Your task to perform on an android device: change timer sound Image 0: 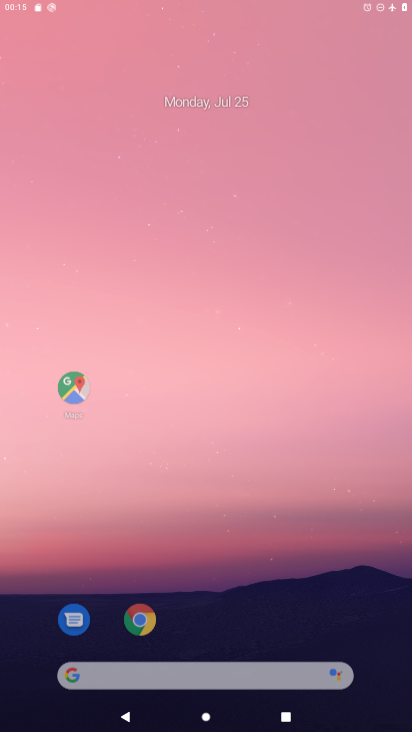
Step 0: click (400, 284)
Your task to perform on an android device: change timer sound Image 1: 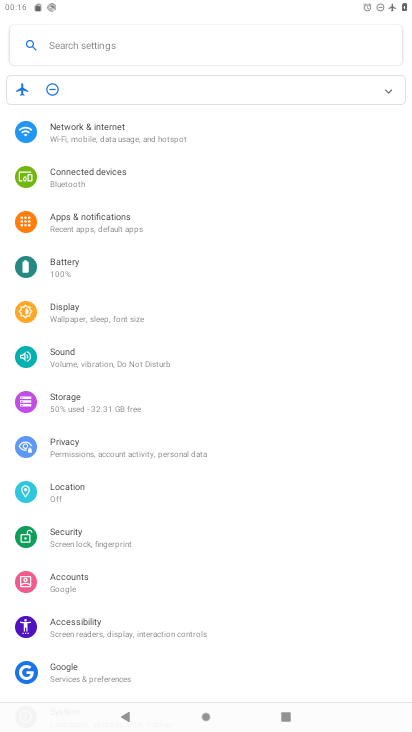
Step 1: press home button
Your task to perform on an android device: change timer sound Image 2: 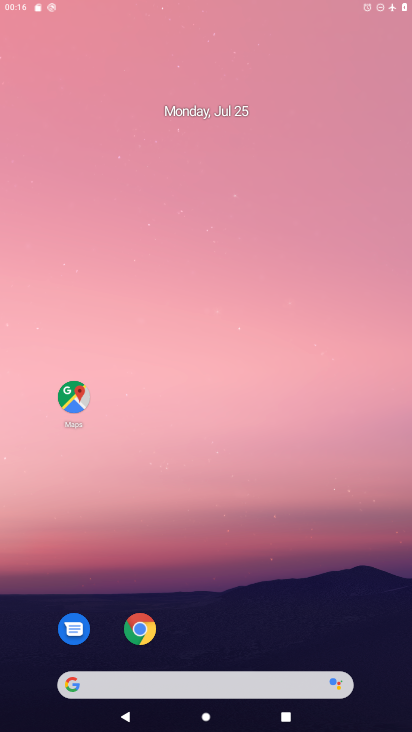
Step 2: drag from (154, 670) to (260, 153)
Your task to perform on an android device: change timer sound Image 3: 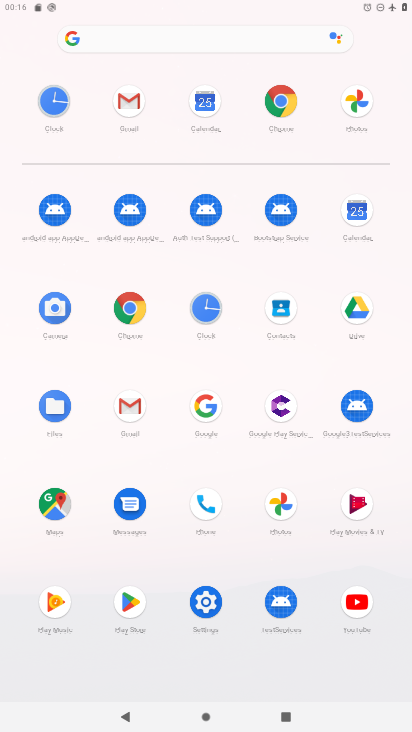
Step 3: click (201, 303)
Your task to perform on an android device: change timer sound Image 4: 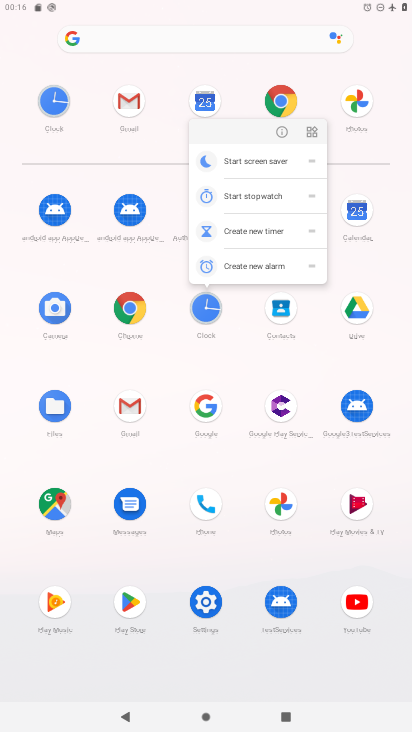
Step 4: click (286, 131)
Your task to perform on an android device: change timer sound Image 5: 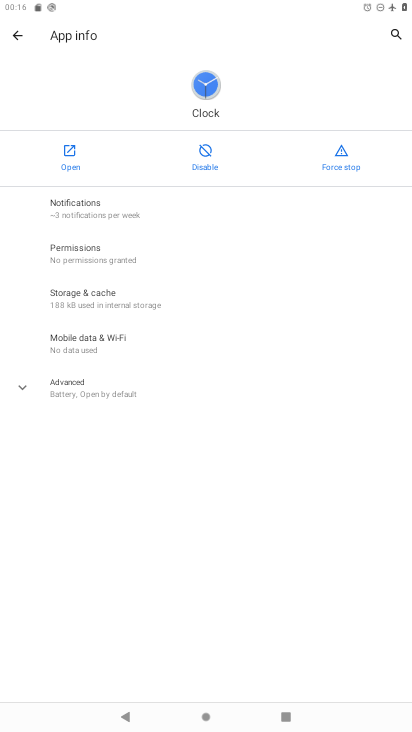
Step 5: click (73, 160)
Your task to perform on an android device: change timer sound Image 6: 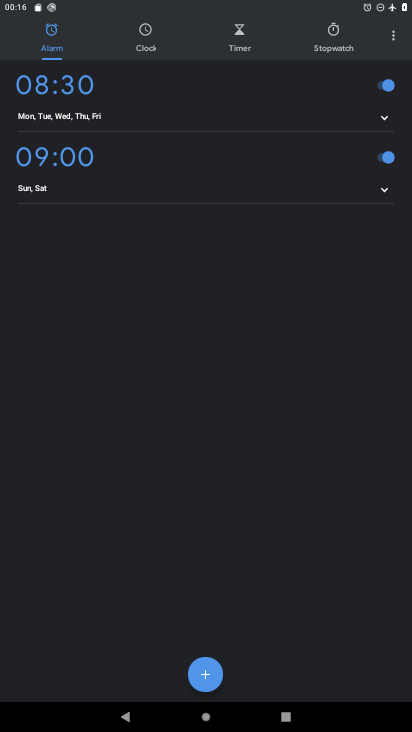
Step 6: click (247, 40)
Your task to perform on an android device: change timer sound Image 7: 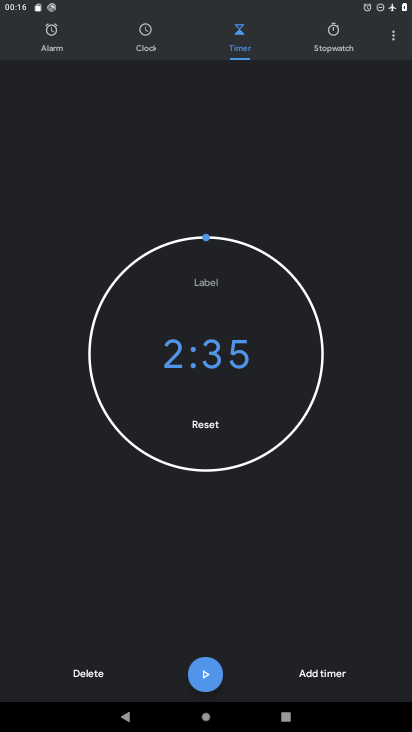
Step 7: click (89, 681)
Your task to perform on an android device: change timer sound Image 8: 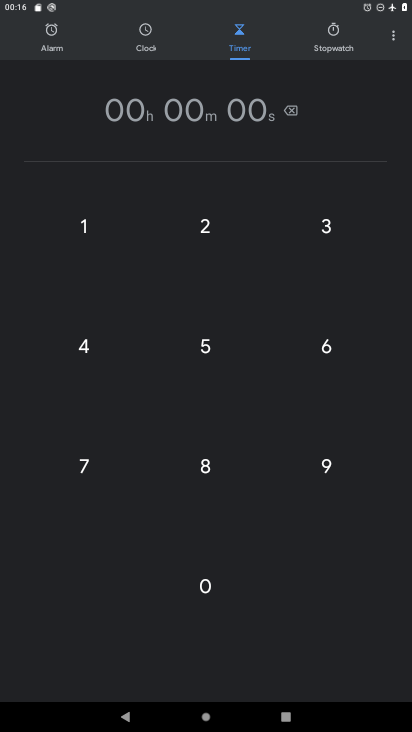
Step 8: click (205, 337)
Your task to perform on an android device: change timer sound Image 9: 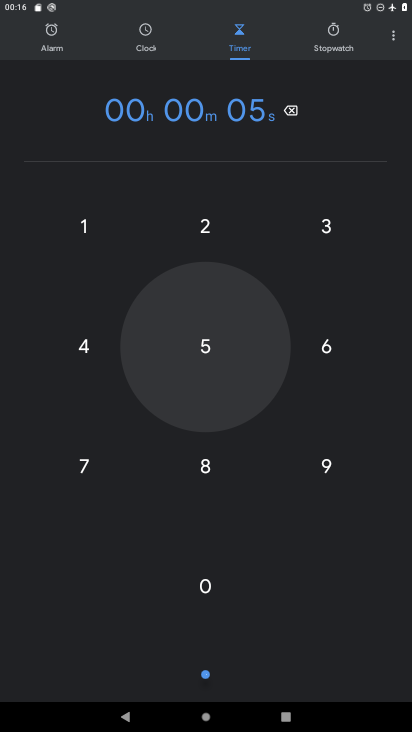
Step 9: click (312, 224)
Your task to perform on an android device: change timer sound Image 10: 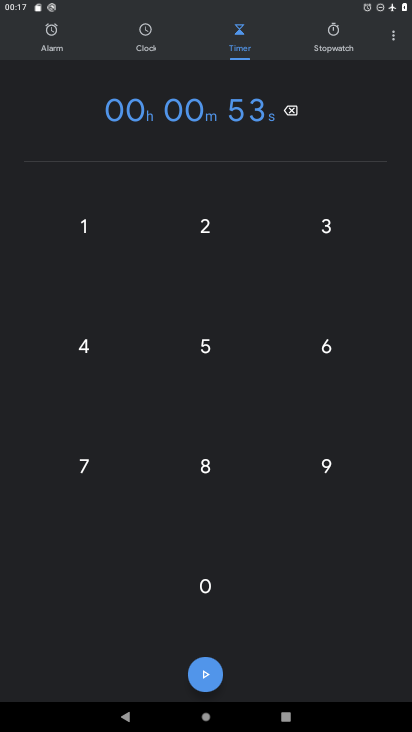
Step 10: click (302, 106)
Your task to perform on an android device: change timer sound Image 11: 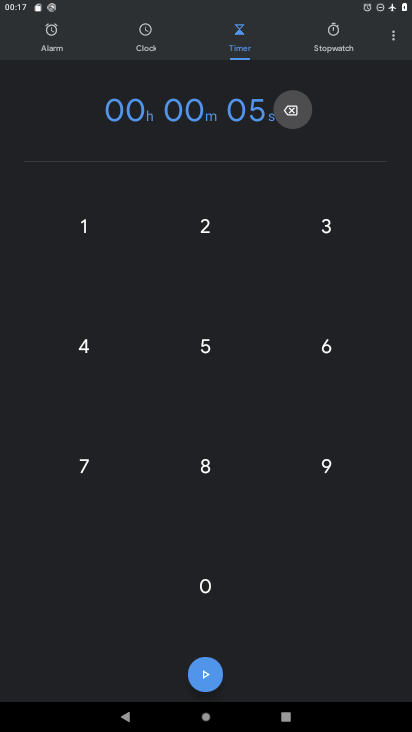
Step 11: click (293, 109)
Your task to perform on an android device: change timer sound Image 12: 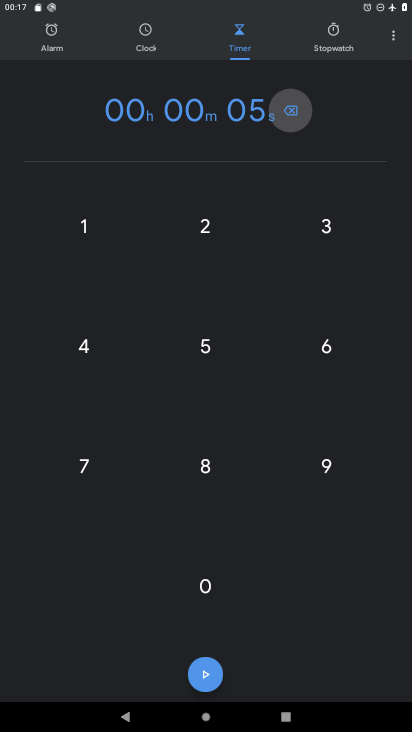
Step 12: click (293, 109)
Your task to perform on an android device: change timer sound Image 13: 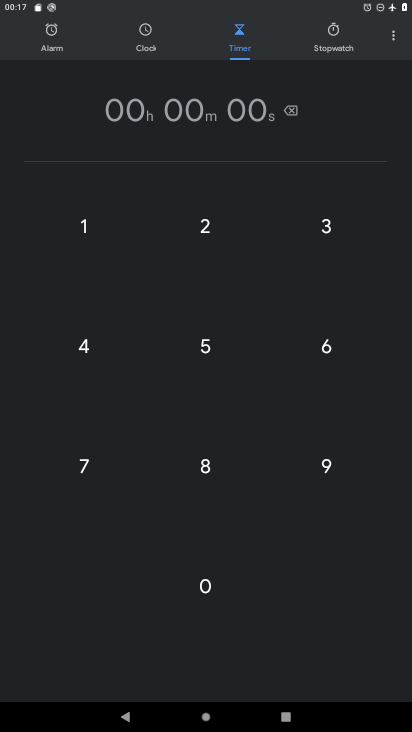
Step 13: drag from (396, 32) to (336, 68)
Your task to perform on an android device: change timer sound Image 14: 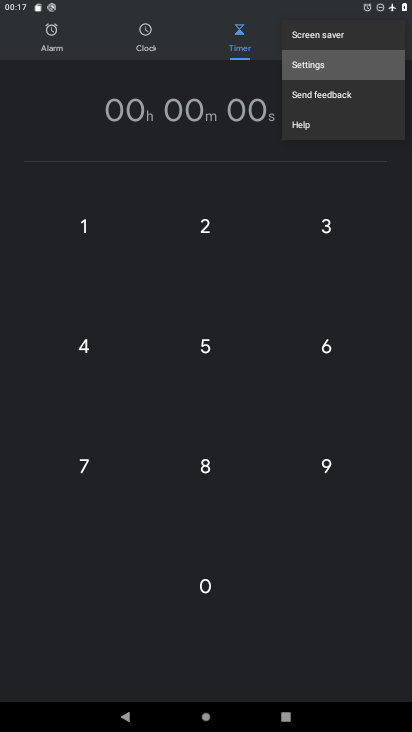
Step 14: click (336, 68)
Your task to perform on an android device: change timer sound Image 15: 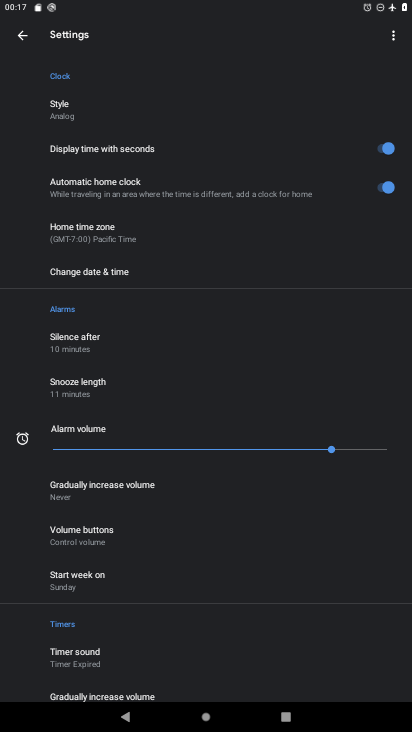
Step 15: click (104, 653)
Your task to perform on an android device: change timer sound Image 16: 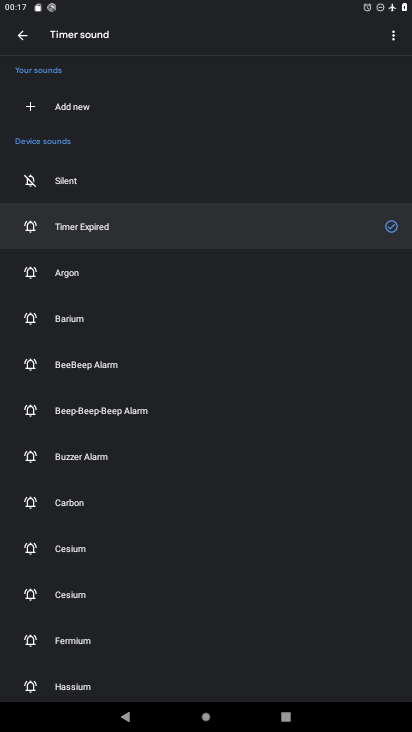
Step 16: drag from (204, 579) to (252, 329)
Your task to perform on an android device: change timer sound Image 17: 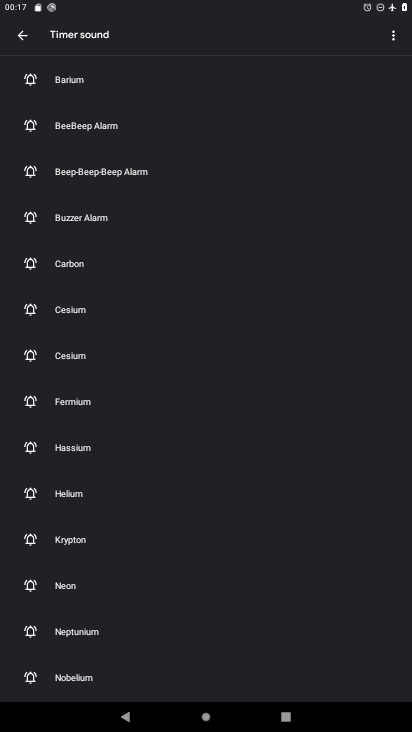
Step 17: drag from (166, 274) to (390, 387)
Your task to perform on an android device: change timer sound Image 18: 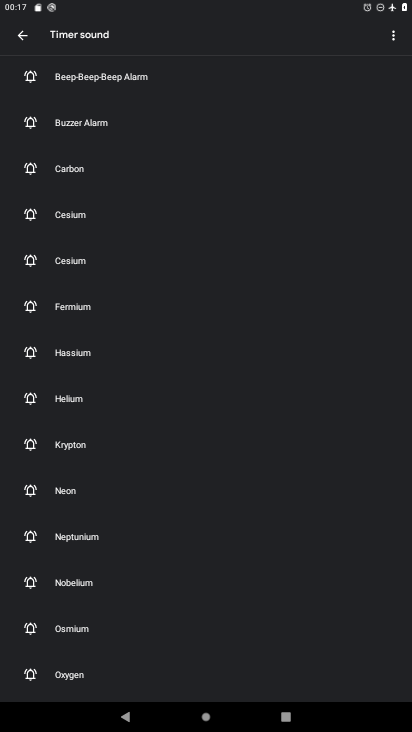
Step 18: click (98, 360)
Your task to perform on an android device: change timer sound Image 19: 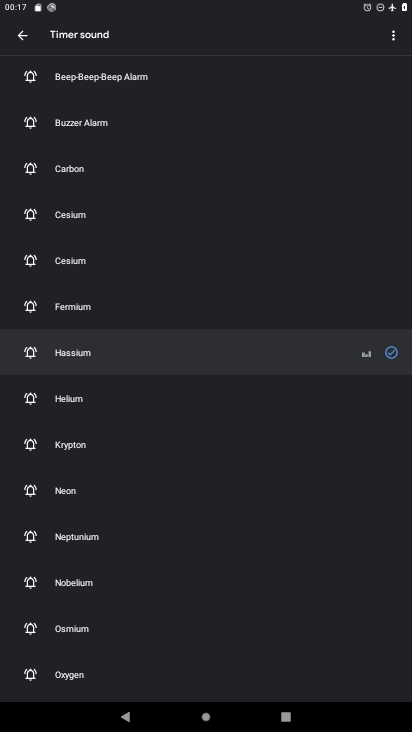
Step 19: click (394, 351)
Your task to perform on an android device: change timer sound Image 20: 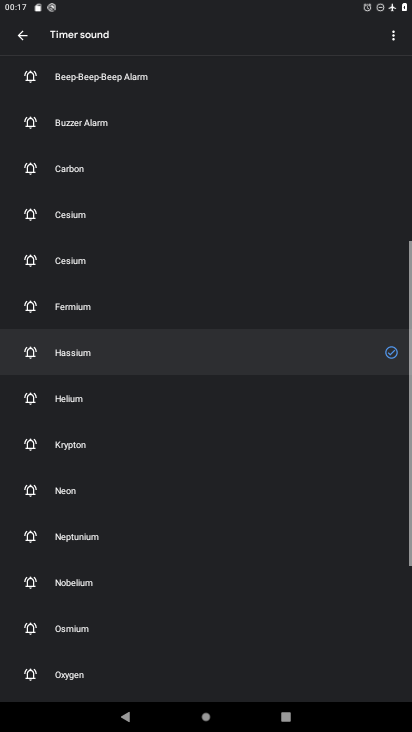
Step 20: task complete